Your task to perform on an android device: Search for pizza restaurants on Maps Image 0: 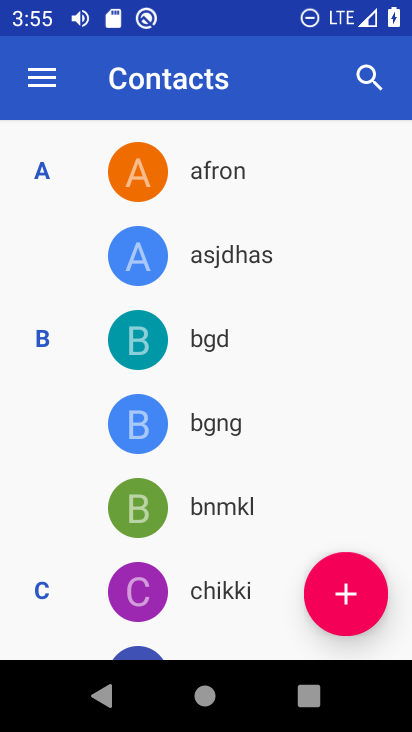
Step 0: press back button
Your task to perform on an android device: Search for pizza restaurants on Maps Image 1: 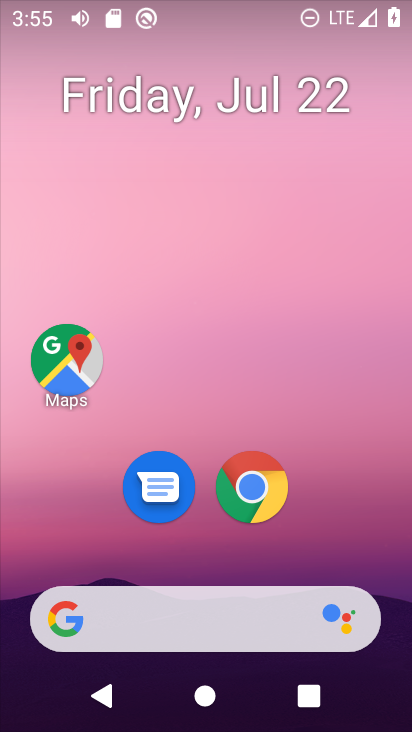
Step 1: click (71, 357)
Your task to perform on an android device: Search for pizza restaurants on Maps Image 2: 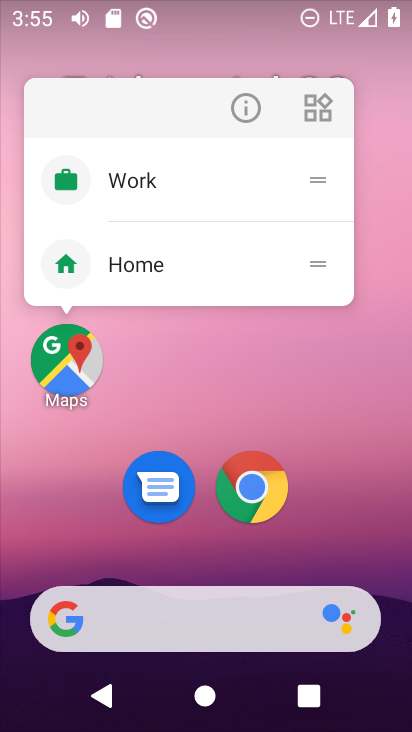
Step 2: click (63, 366)
Your task to perform on an android device: Search for pizza restaurants on Maps Image 3: 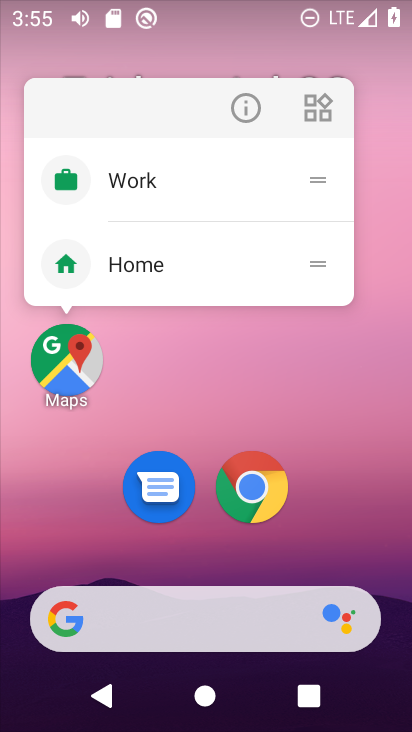
Step 3: click (59, 365)
Your task to perform on an android device: Search for pizza restaurants on Maps Image 4: 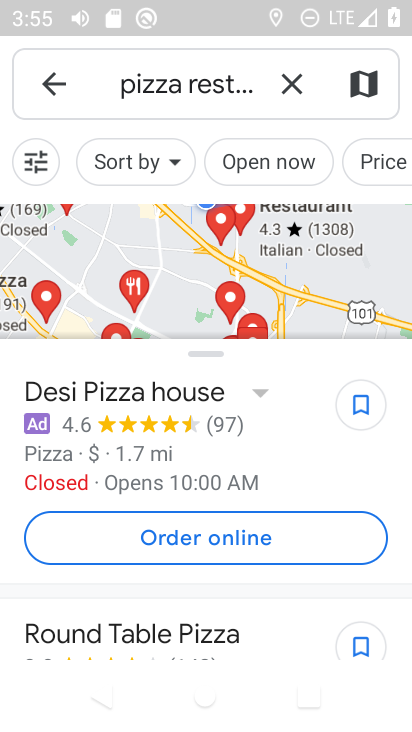
Step 4: task complete